Your task to perform on an android device: turn on notifications settings in the gmail app Image 0: 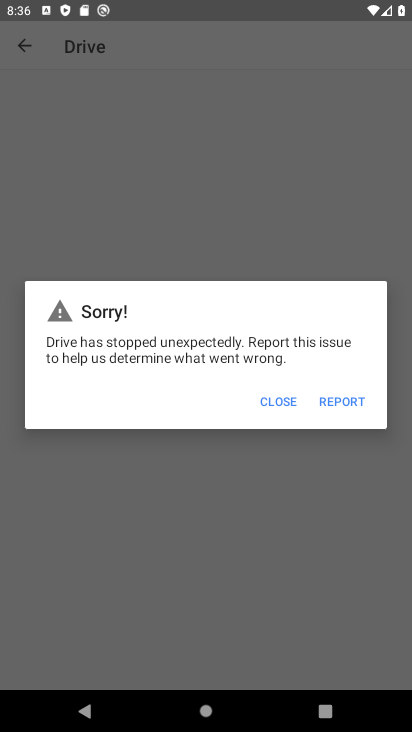
Step 0: press home button
Your task to perform on an android device: turn on notifications settings in the gmail app Image 1: 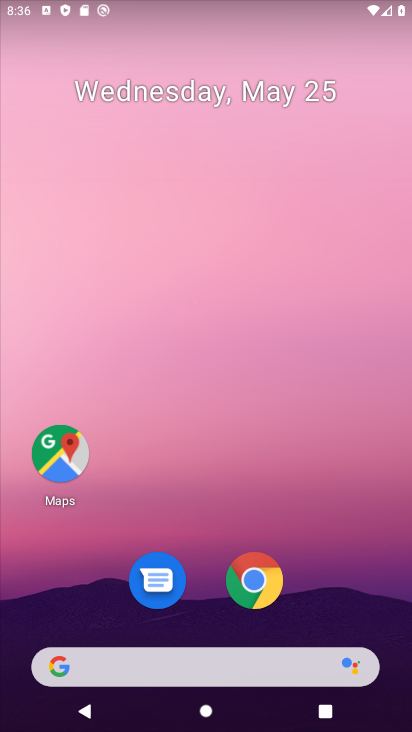
Step 1: drag from (26, 538) to (231, 124)
Your task to perform on an android device: turn on notifications settings in the gmail app Image 2: 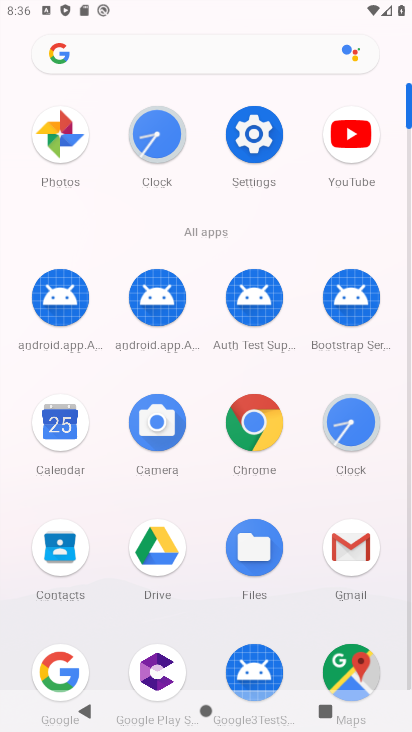
Step 2: click (346, 563)
Your task to perform on an android device: turn on notifications settings in the gmail app Image 3: 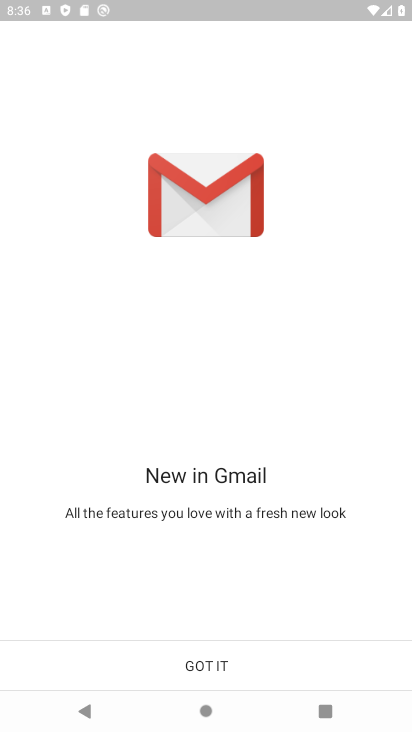
Step 3: click (227, 657)
Your task to perform on an android device: turn on notifications settings in the gmail app Image 4: 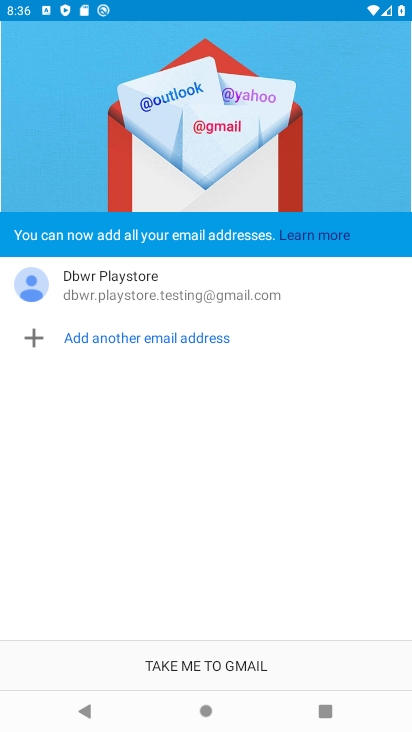
Step 4: click (194, 666)
Your task to perform on an android device: turn on notifications settings in the gmail app Image 5: 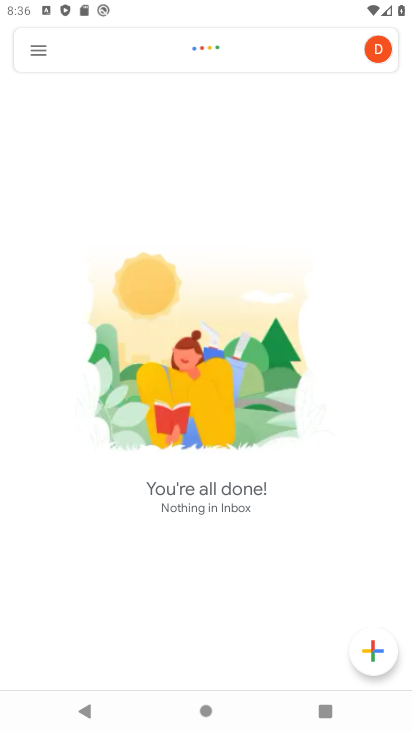
Step 5: click (36, 50)
Your task to perform on an android device: turn on notifications settings in the gmail app Image 6: 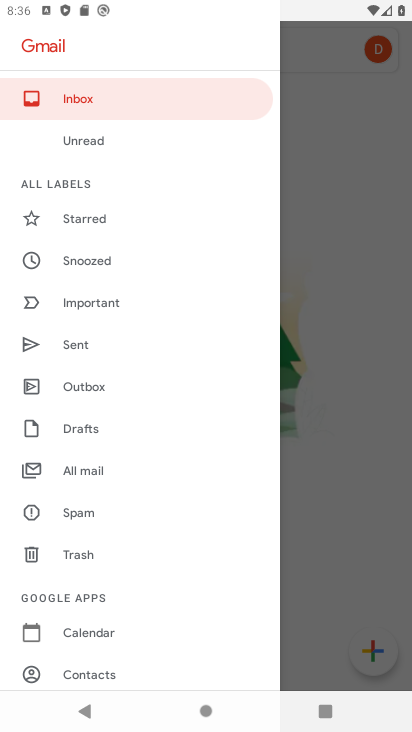
Step 6: drag from (12, 570) to (129, 269)
Your task to perform on an android device: turn on notifications settings in the gmail app Image 7: 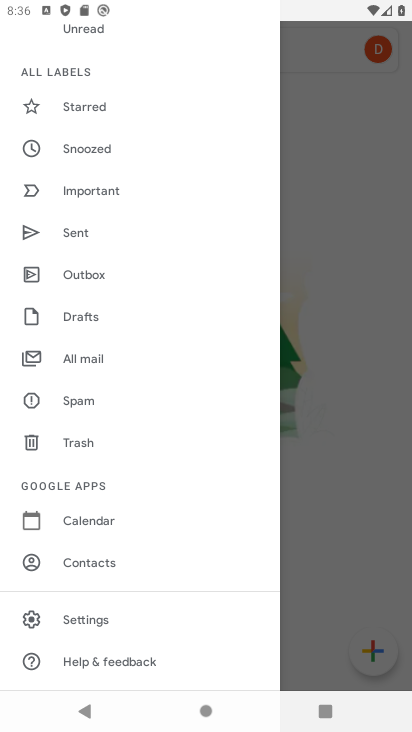
Step 7: click (98, 611)
Your task to perform on an android device: turn on notifications settings in the gmail app Image 8: 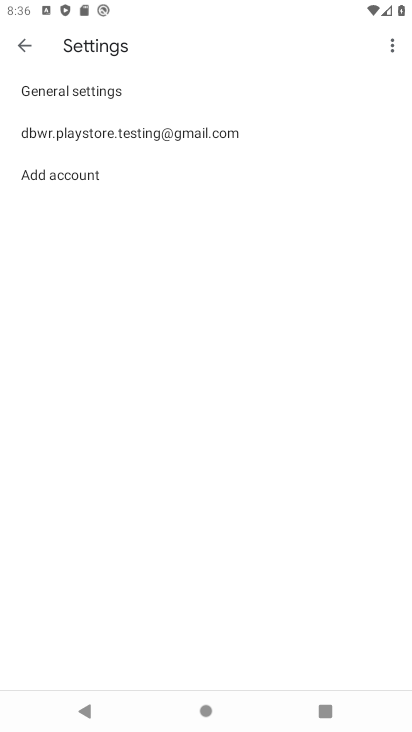
Step 8: click (167, 136)
Your task to perform on an android device: turn on notifications settings in the gmail app Image 9: 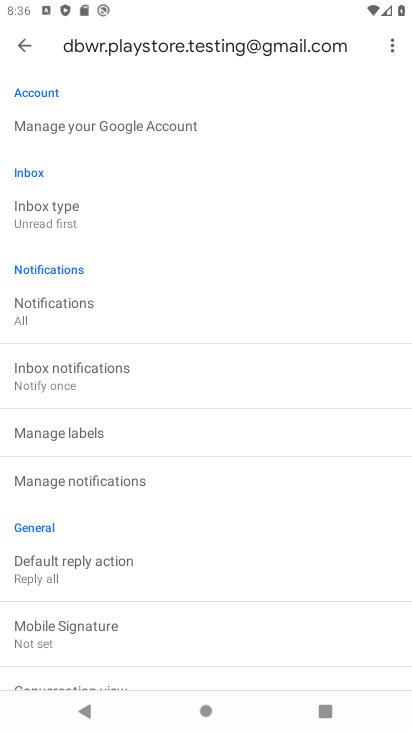
Step 9: click (103, 493)
Your task to perform on an android device: turn on notifications settings in the gmail app Image 10: 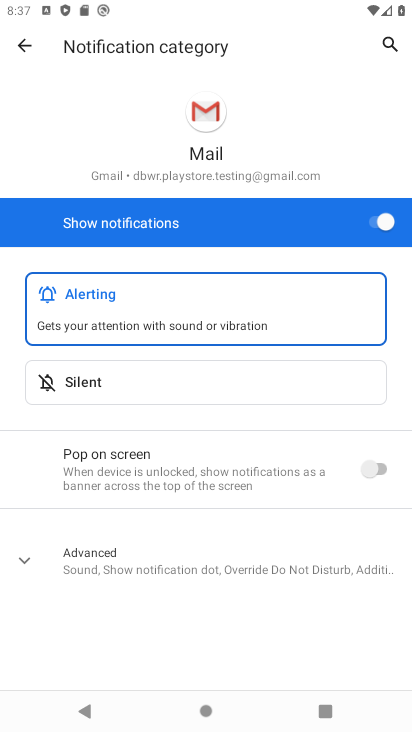
Step 10: click (395, 225)
Your task to perform on an android device: turn on notifications settings in the gmail app Image 11: 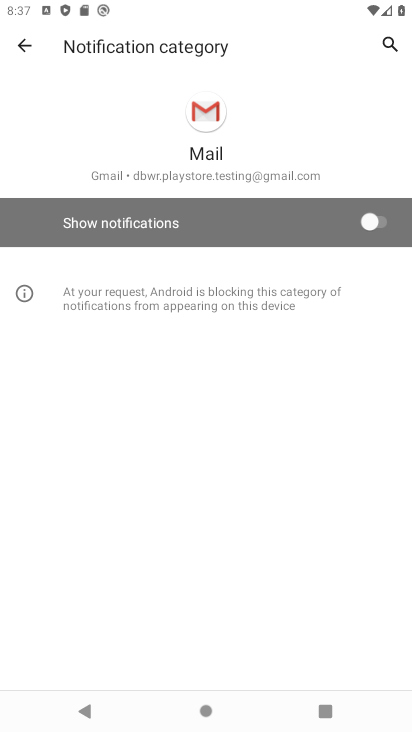
Step 11: task complete